Your task to perform on an android device: Go to settings Image 0: 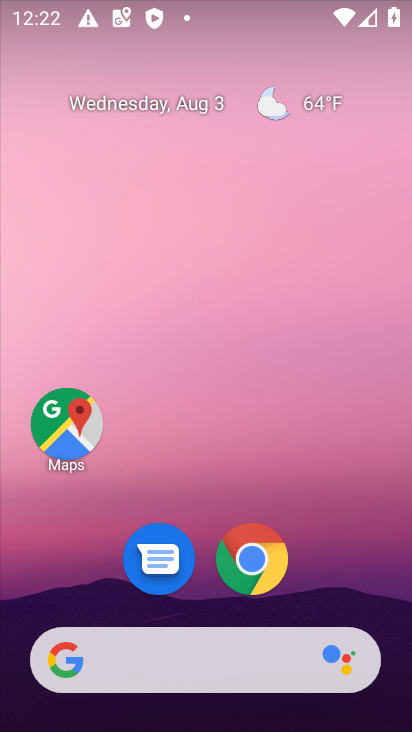
Step 0: drag from (179, 675) to (191, 215)
Your task to perform on an android device: Go to settings Image 1: 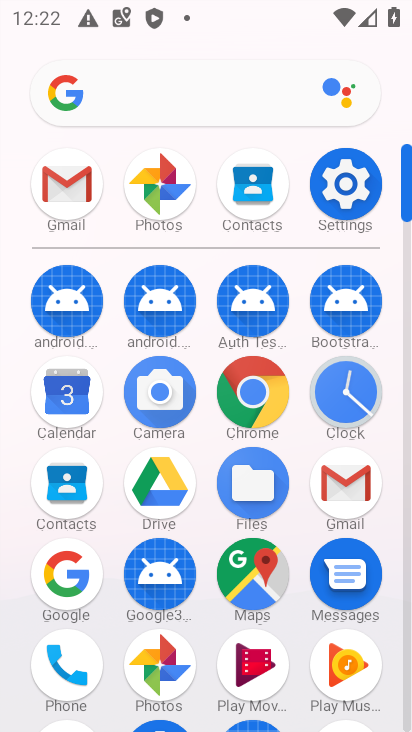
Step 1: click (356, 177)
Your task to perform on an android device: Go to settings Image 2: 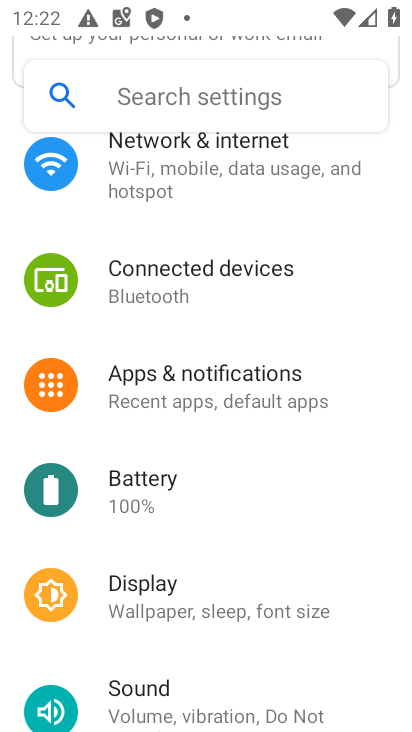
Step 2: task complete